Your task to perform on an android device: Open Google Maps and go to "Timeline" Image 0: 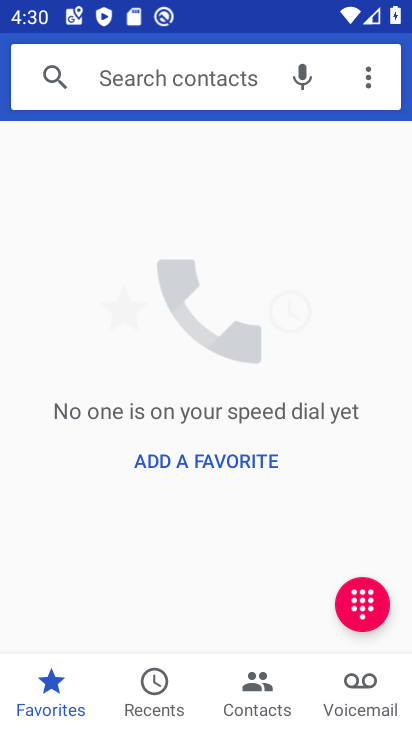
Step 0: press home button
Your task to perform on an android device: Open Google Maps and go to "Timeline" Image 1: 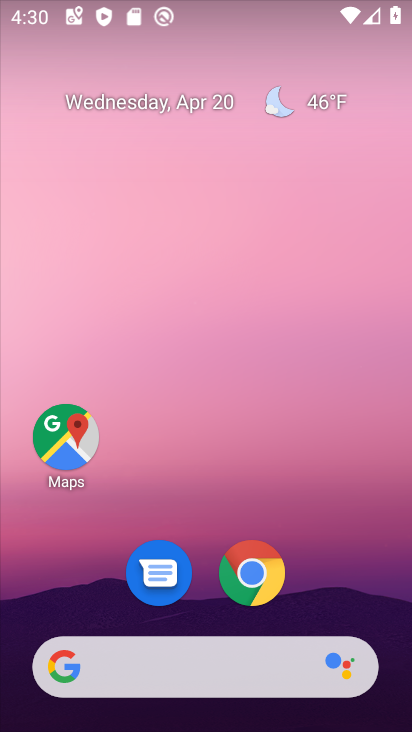
Step 1: drag from (372, 361) to (365, 148)
Your task to perform on an android device: Open Google Maps and go to "Timeline" Image 2: 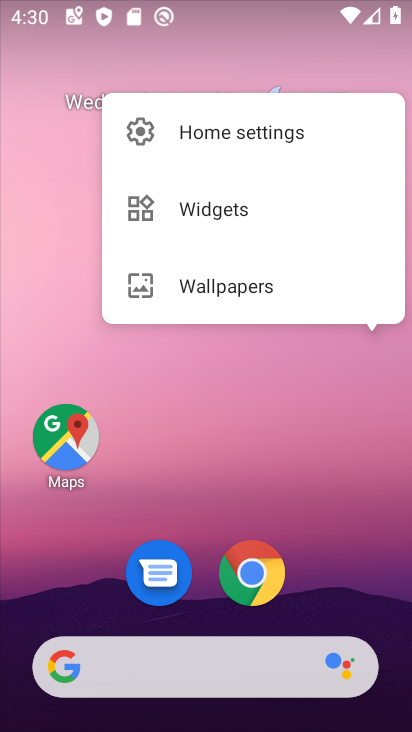
Step 2: click (363, 417)
Your task to perform on an android device: Open Google Maps and go to "Timeline" Image 3: 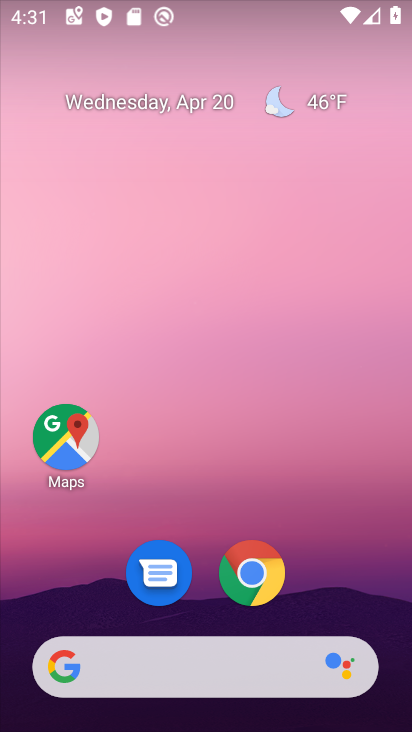
Step 3: drag from (383, 134) to (367, 48)
Your task to perform on an android device: Open Google Maps and go to "Timeline" Image 4: 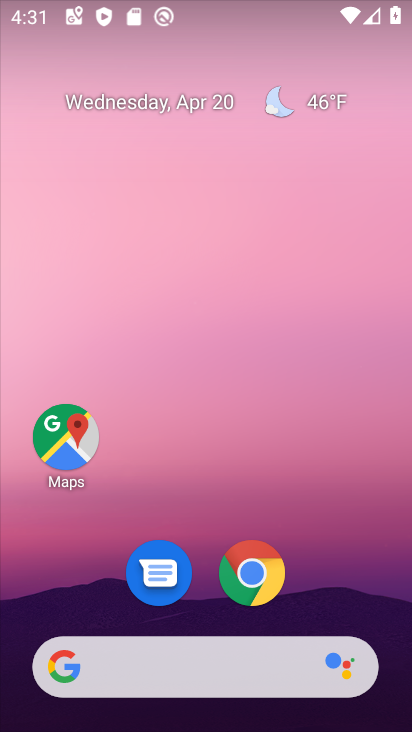
Step 4: click (356, 118)
Your task to perform on an android device: Open Google Maps and go to "Timeline" Image 5: 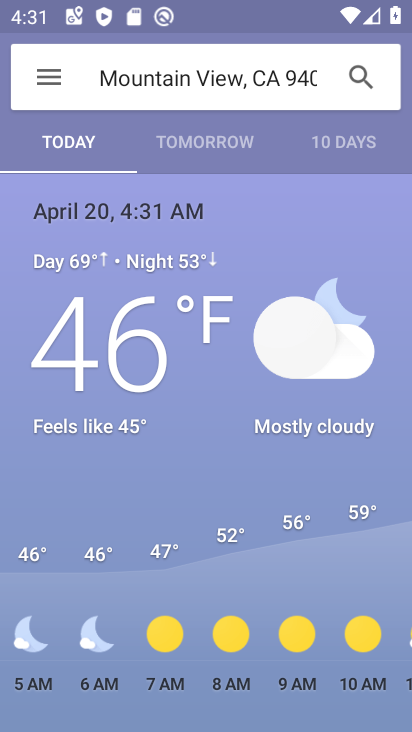
Step 5: press home button
Your task to perform on an android device: Open Google Maps and go to "Timeline" Image 6: 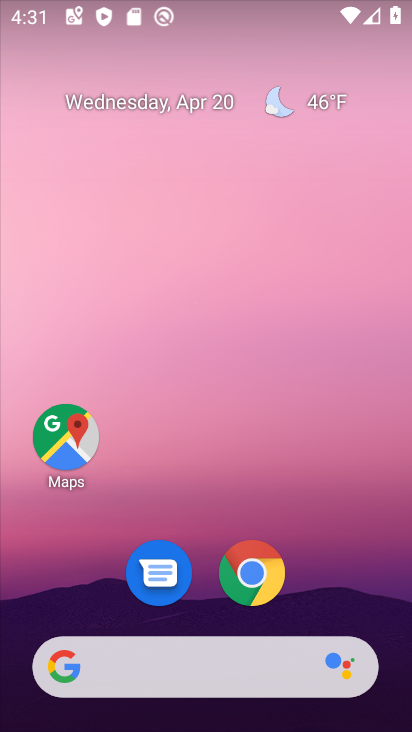
Step 6: click (56, 416)
Your task to perform on an android device: Open Google Maps and go to "Timeline" Image 7: 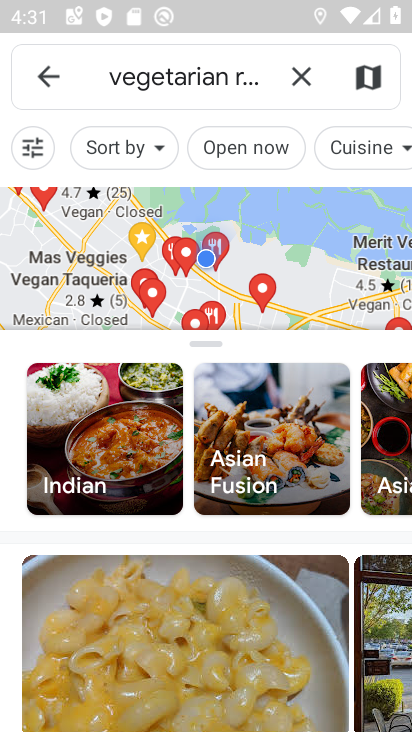
Step 7: click (54, 78)
Your task to perform on an android device: Open Google Maps and go to "Timeline" Image 8: 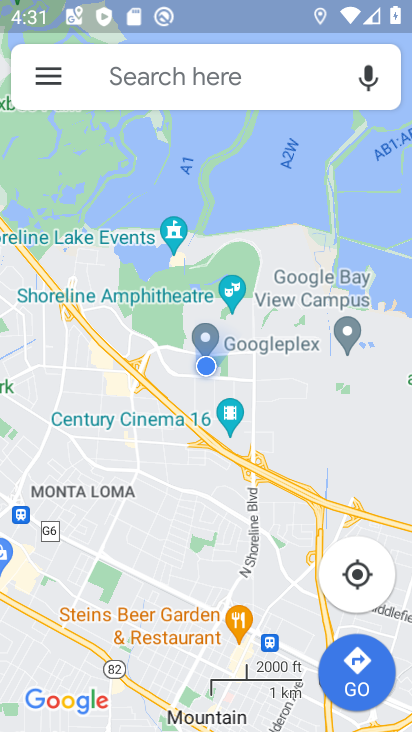
Step 8: click (49, 75)
Your task to perform on an android device: Open Google Maps and go to "Timeline" Image 9: 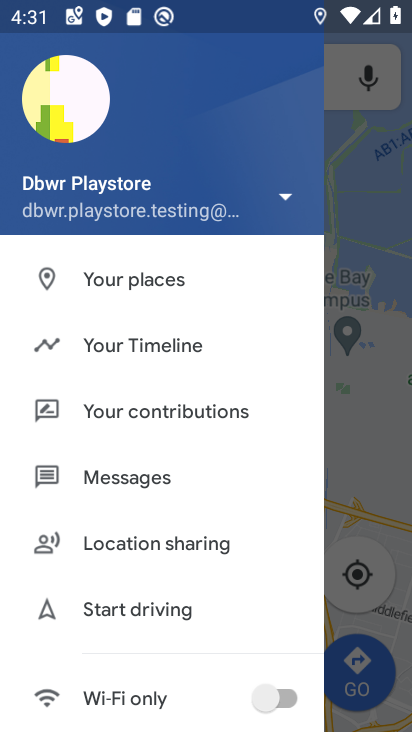
Step 9: click (138, 337)
Your task to perform on an android device: Open Google Maps and go to "Timeline" Image 10: 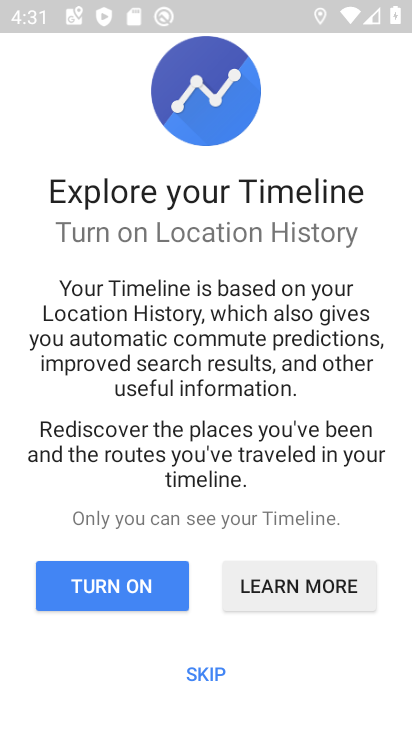
Step 10: task complete